Your task to perform on an android device: set the timer Image 0: 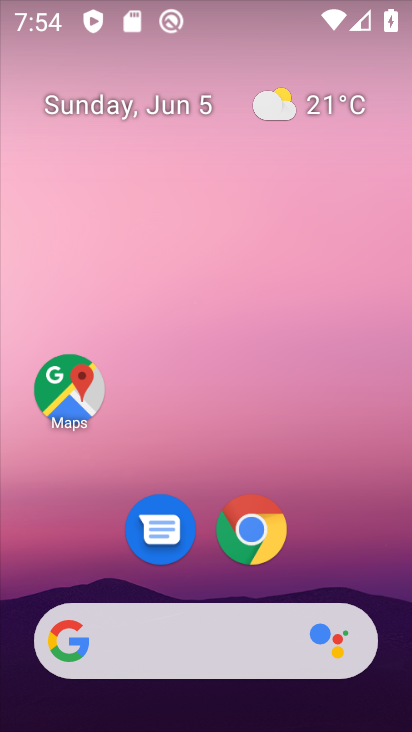
Step 0: drag from (187, 682) to (341, 25)
Your task to perform on an android device: set the timer Image 1: 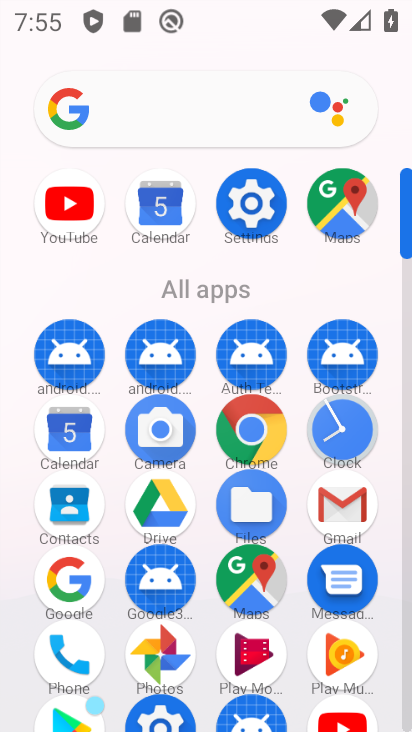
Step 1: click (332, 422)
Your task to perform on an android device: set the timer Image 2: 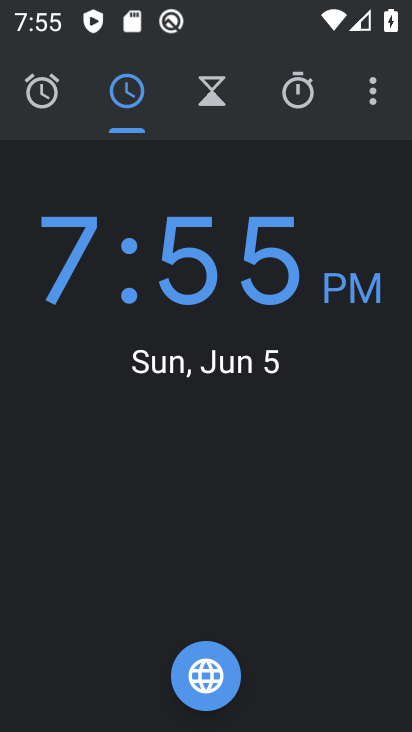
Step 2: click (220, 92)
Your task to perform on an android device: set the timer Image 3: 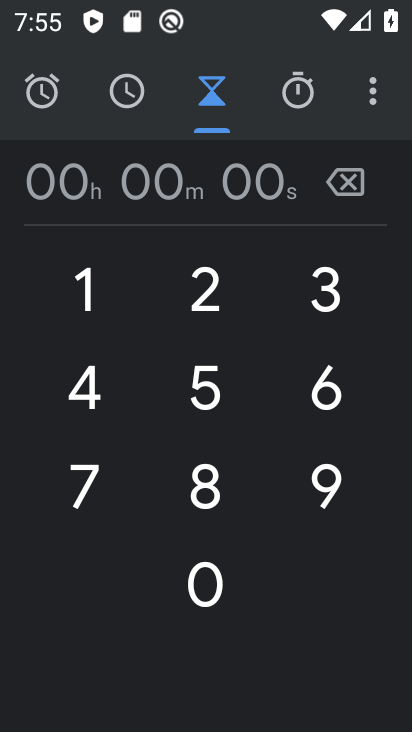
Step 3: click (172, 359)
Your task to perform on an android device: set the timer Image 4: 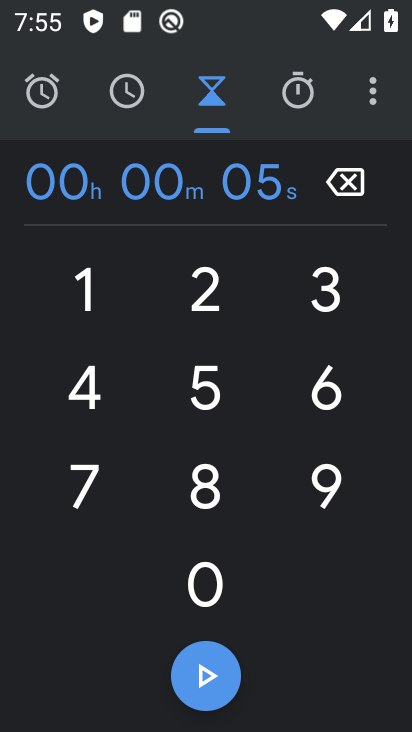
Step 4: click (336, 478)
Your task to perform on an android device: set the timer Image 5: 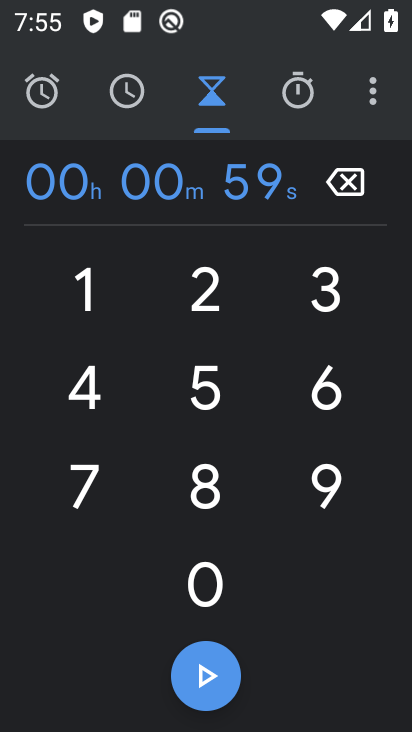
Step 5: task complete